Your task to perform on an android device: Is it going to rain today? Image 0: 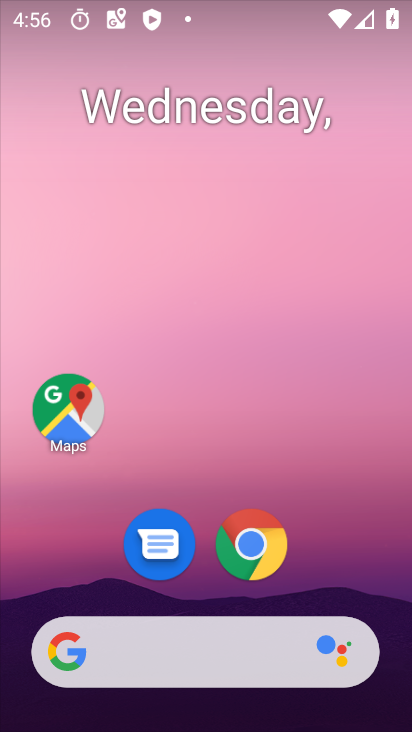
Step 0: drag from (195, 570) to (281, 31)
Your task to perform on an android device: Is it going to rain today? Image 1: 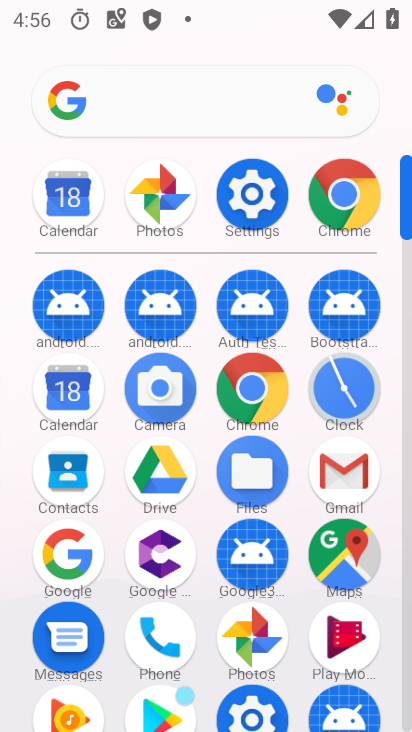
Step 1: click (70, 549)
Your task to perform on an android device: Is it going to rain today? Image 2: 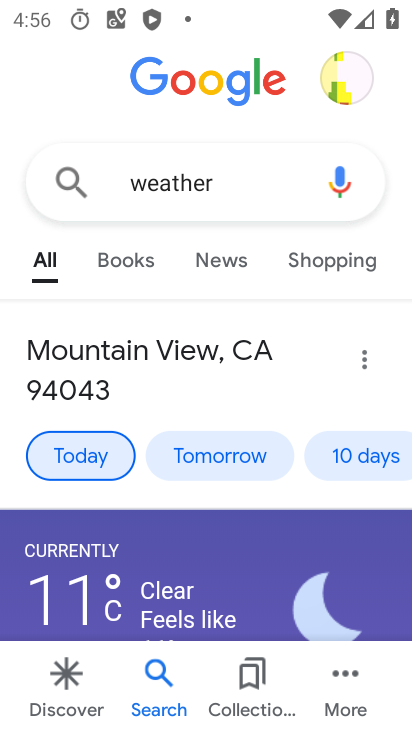
Step 2: click (71, 446)
Your task to perform on an android device: Is it going to rain today? Image 3: 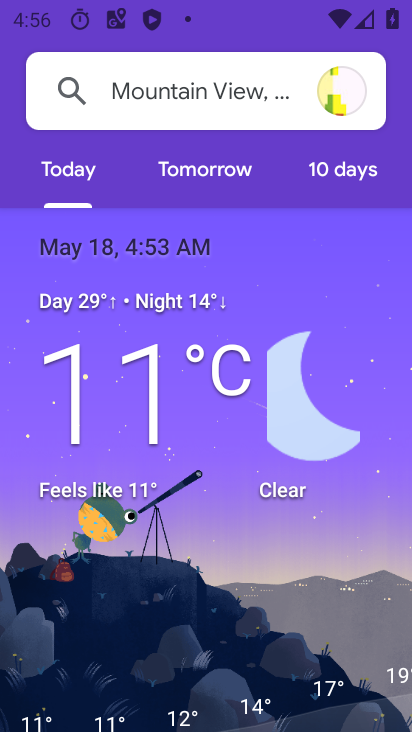
Step 3: task complete